Your task to perform on an android device: add a contact in the contacts app Image 0: 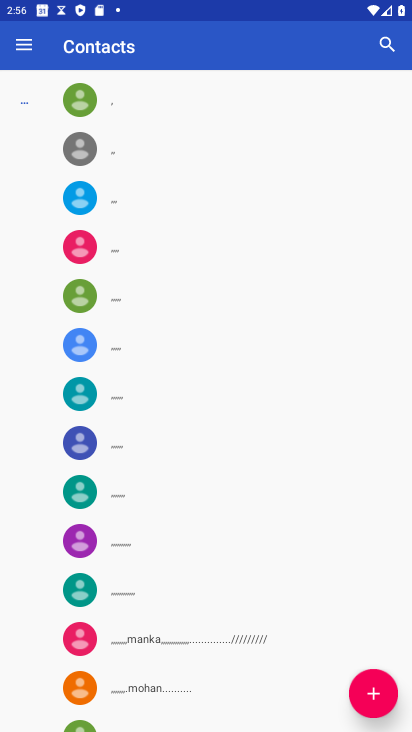
Step 0: press home button
Your task to perform on an android device: add a contact in the contacts app Image 1: 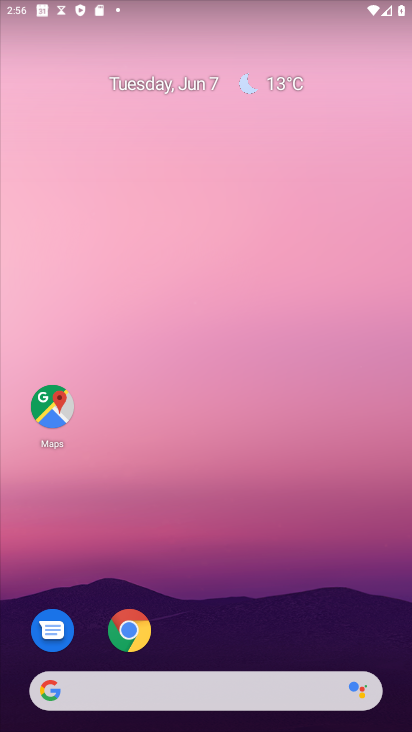
Step 1: drag from (228, 683) to (332, 173)
Your task to perform on an android device: add a contact in the contacts app Image 2: 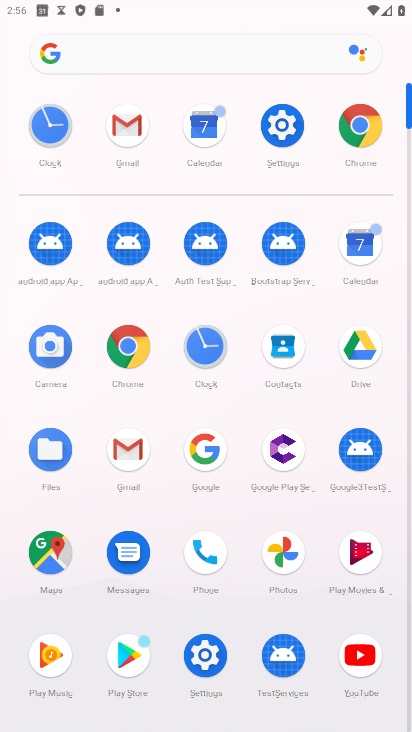
Step 2: click (269, 350)
Your task to perform on an android device: add a contact in the contacts app Image 3: 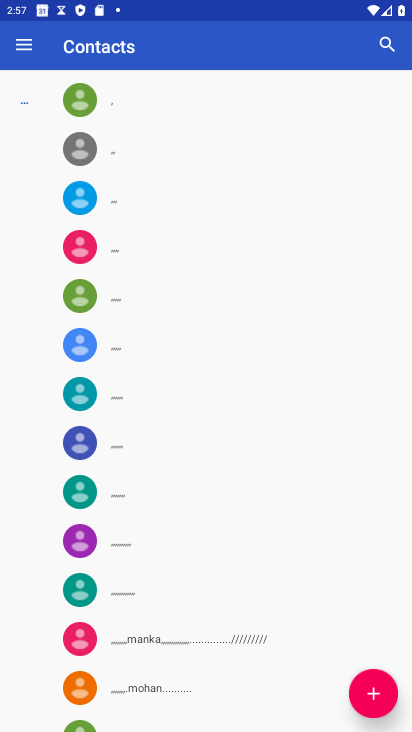
Step 3: click (363, 693)
Your task to perform on an android device: add a contact in the contacts app Image 4: 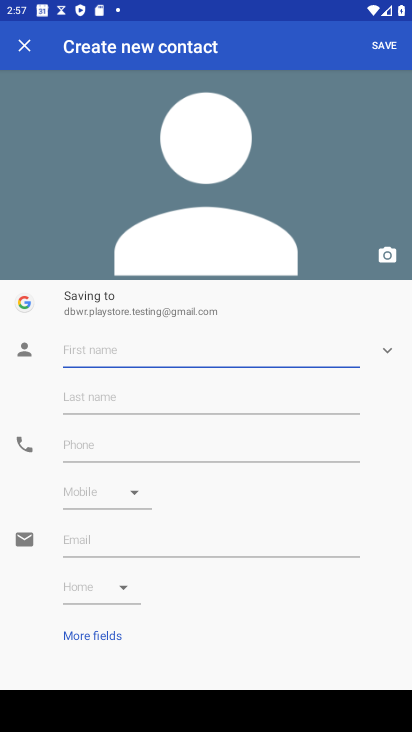
Step 4: type "nbcxx"
Your task to perform on an android device: add a contact in the contacts app Image 5: 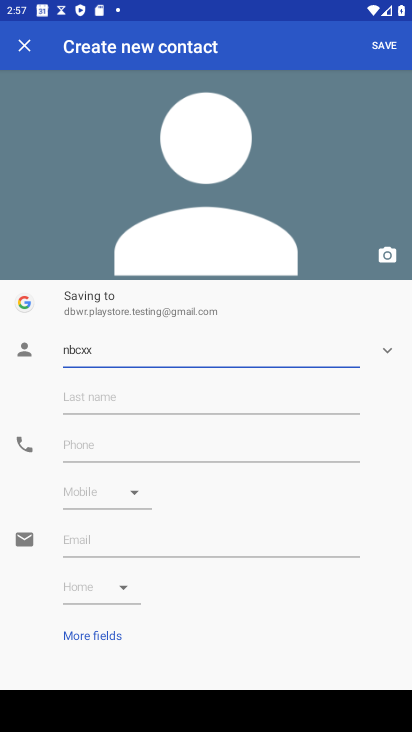
Step 5: click (264, 442)
Your task to perform on an android device: add a contact in the contacts app Image 6: 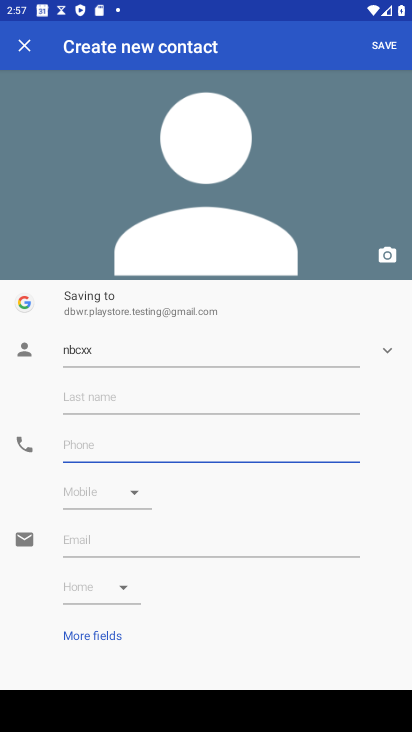
Step 6: type "392479283"
Your task to perform on an android device: add a contact in the contacts app Image 7: 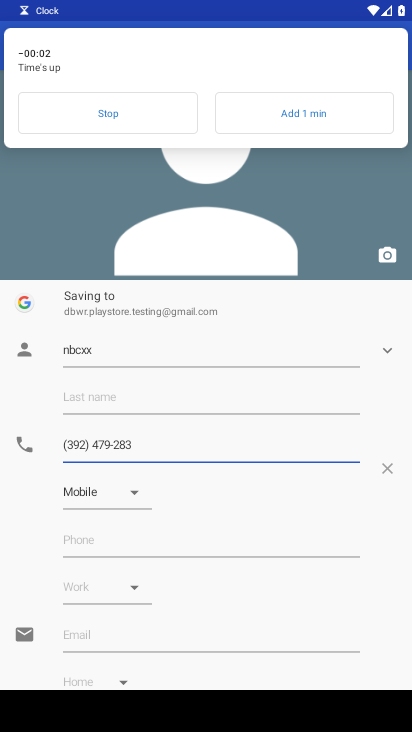
Step 7: click (124, 125)
Your task to perform on an android device: add a contact in the contacts app Image 8: 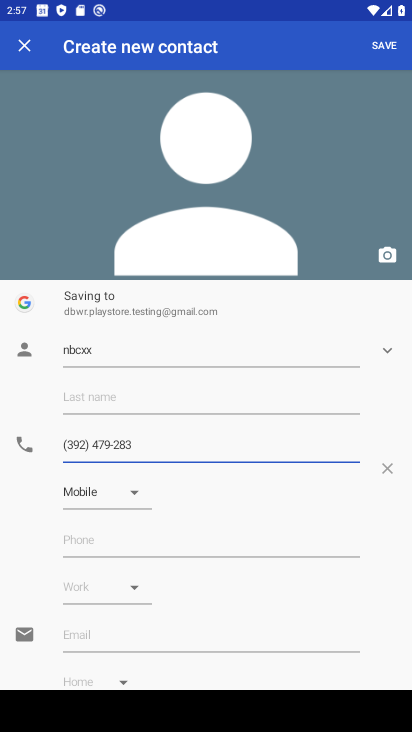
Step 8: click (388, 49)
Your task to perform on an android device: add a contact in the contacts app Image 9: 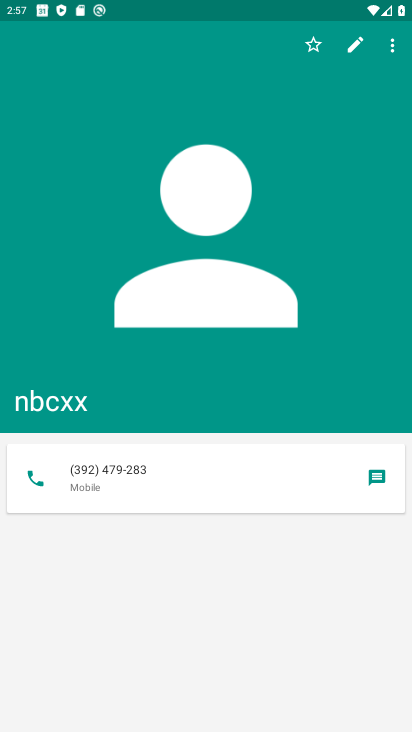
Step 9: task complete